Your task to perform on an android device: open app "eBay: The shopping marketplace" Image 0: 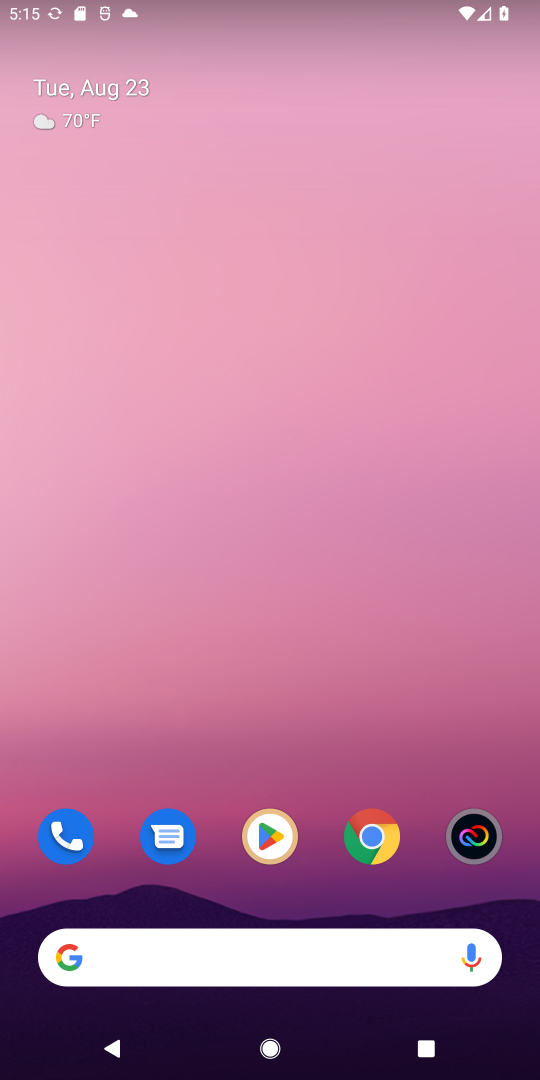
Step 0: click (274, 834)
Your task to perform on an android device: open app "eBay: The shopping marketplace" Image 1: 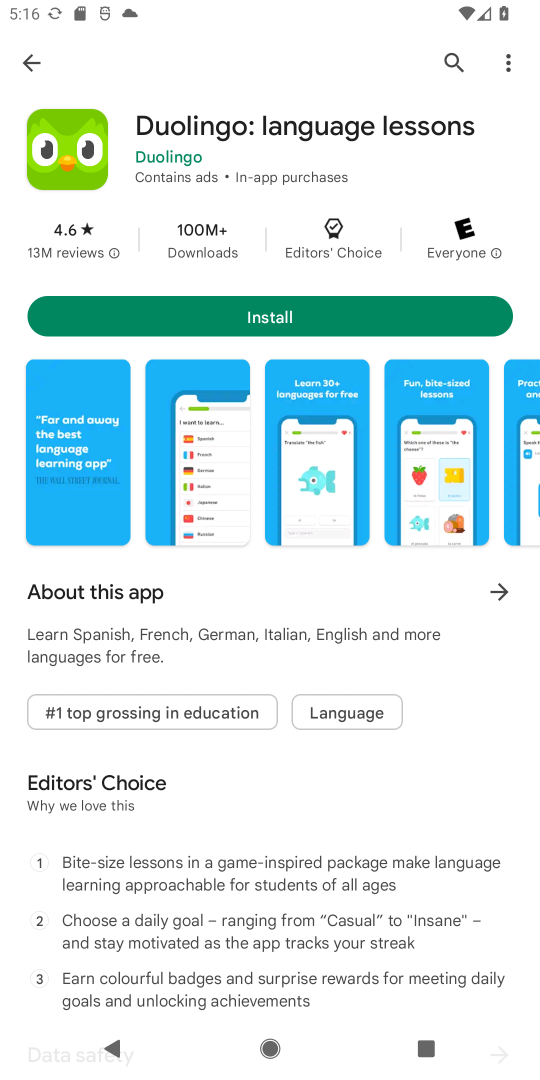
Step 1: click (454, 57)
Your task to perform on an android device: open app "eBay: The shopping marketplace" Image 2: 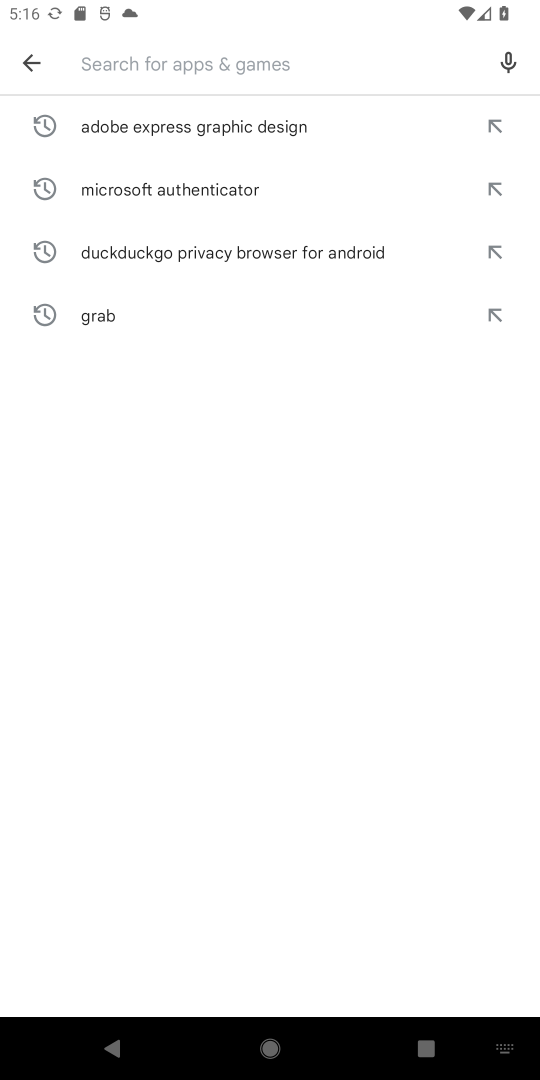
Step 2: type "eBay: The shopping marketplace"
Your task to perform on an android device: open app "eBay: The shopping marketplace" Image 3: 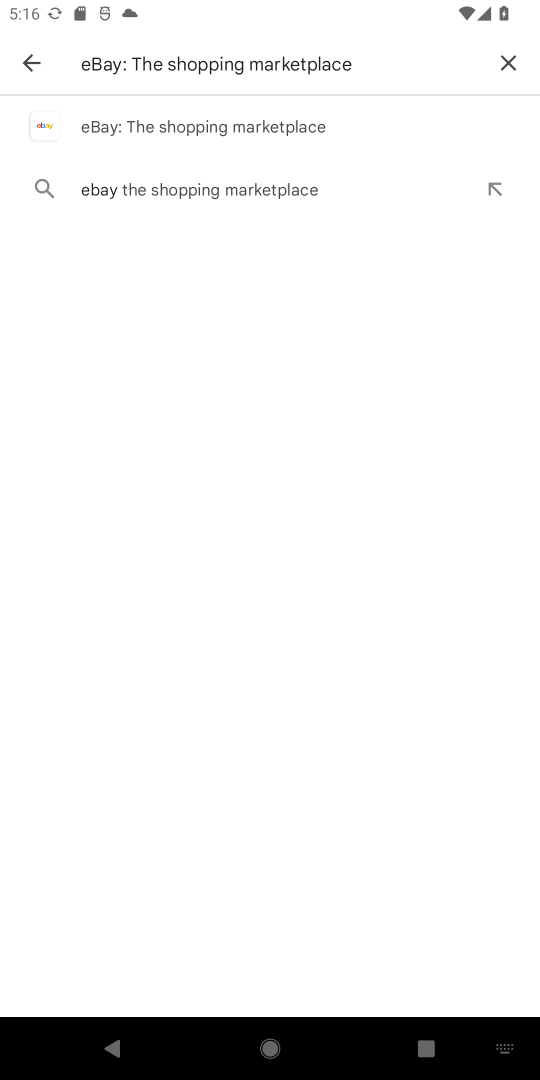
Step 3: click (152, 128)
Your task to perform on an android device: open app "eBay: The shopping marketplace" Image 4: 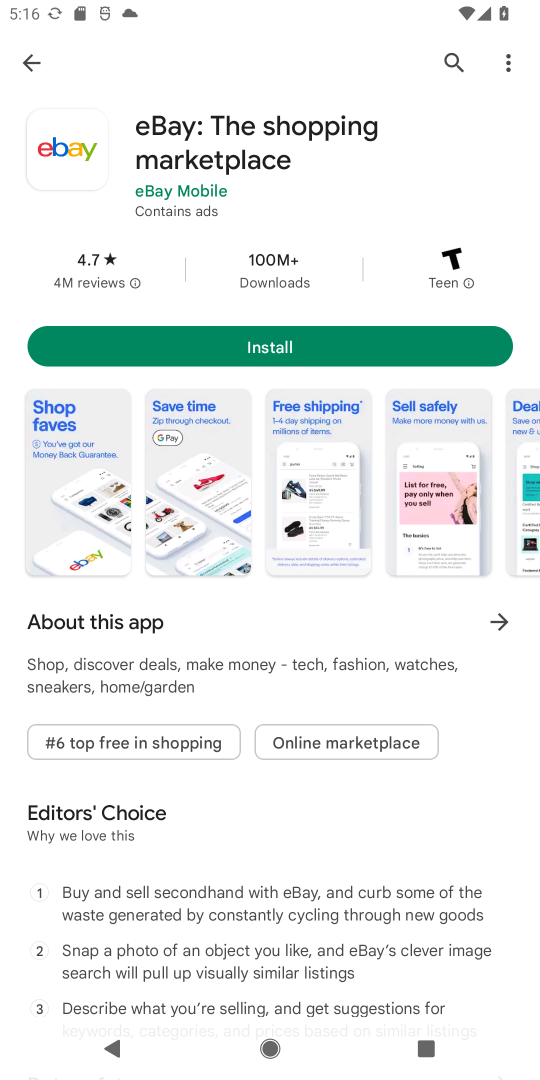
Step 4: task complete